Your task to perform on an android device: turn on the 12-hour format for clock Image 0: 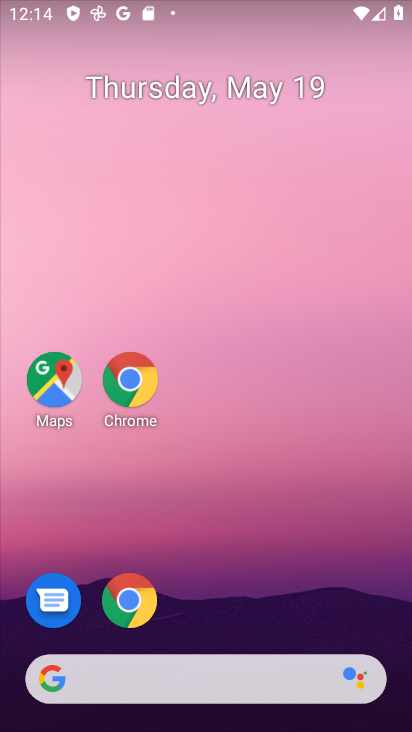
Step 0: drag from (278, 610) to (196, 52)
Your task to perform on an android device: turn on the 12-hour format for clock Image 1: 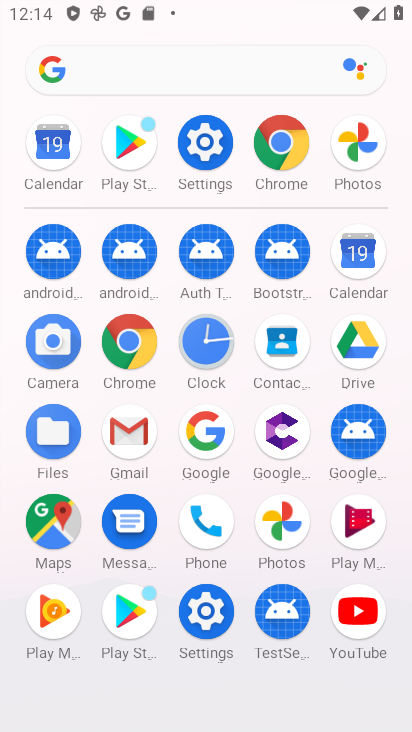
Step 1: click (216, 336)
Your task to perform on an android device: turn on the 12-hour format for clock Image 2: 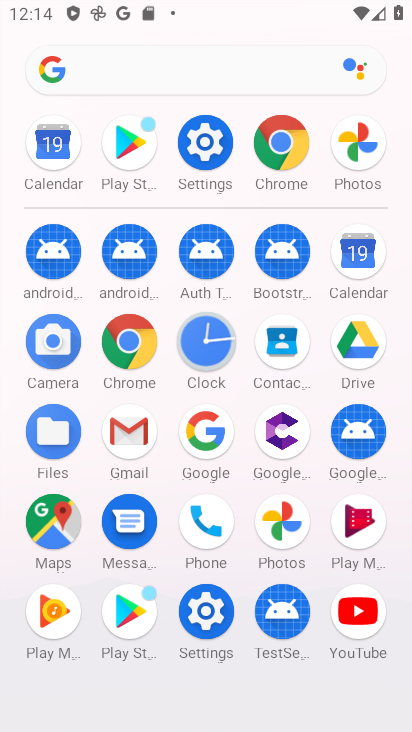
Step 2: click (214, 337)
Your task to perform on an android device: turn on the 12-hour format for clock Image 3: 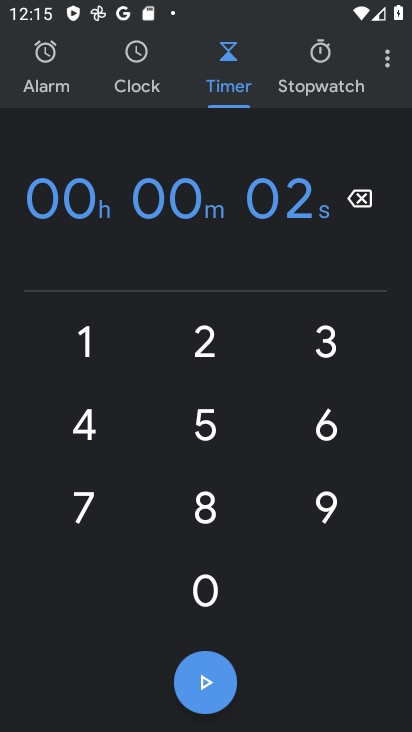
Step 3: click (388, 54)
Your task to perform on an android device: turn on the 12-hour format for clock Image 4: 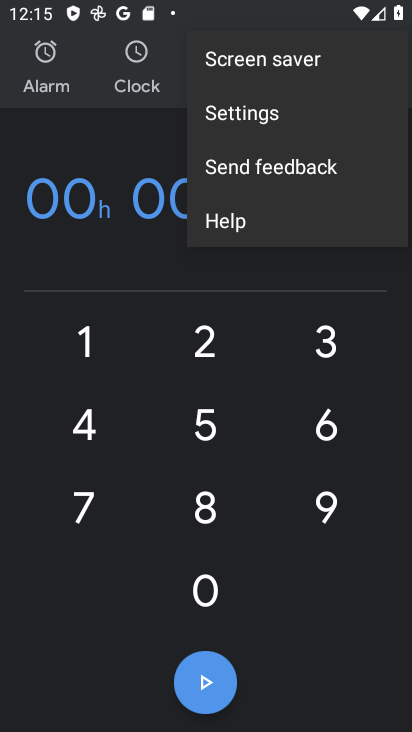
Step 4: click (236, 117)
Your task to perform on an android device: turn on the 12-hour format for clock Image 5: 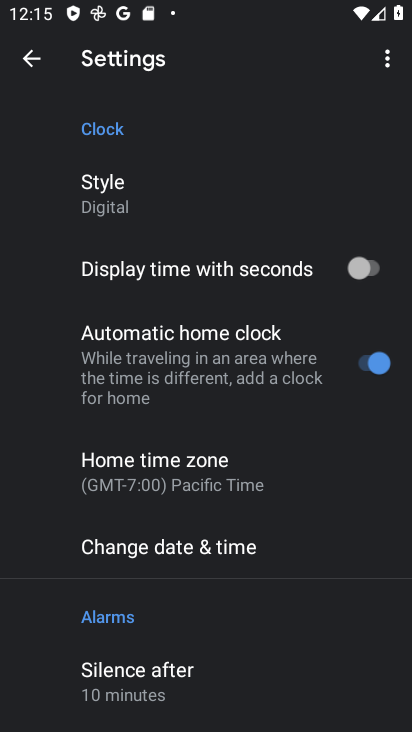
Step 5: click (211, 539)
Your task to perform on an android device: turn on the 12-hour format for clock Image 6: 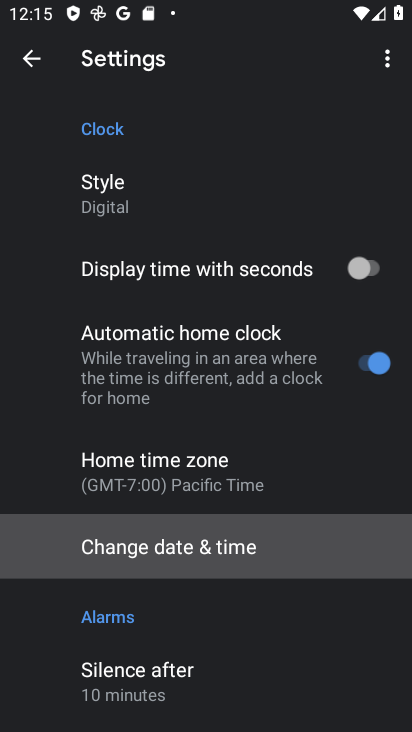
Step 6: click (211, 540)
Your task to perform on an android device: turn on the 12-hour format for clock Image 7: 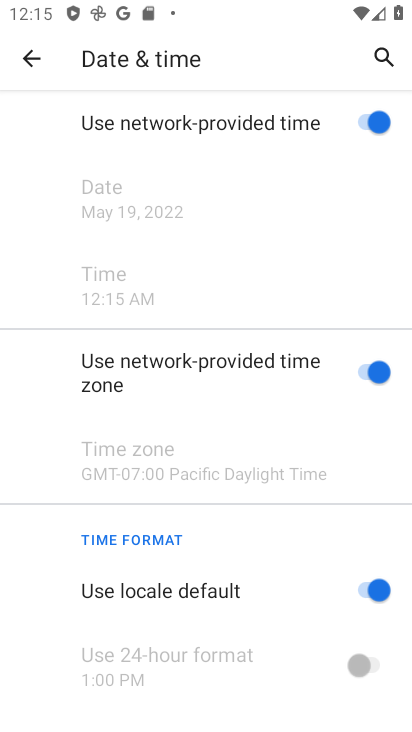
Step 7: task complete